Your task to perform on an android device: turn off location history Image 0: 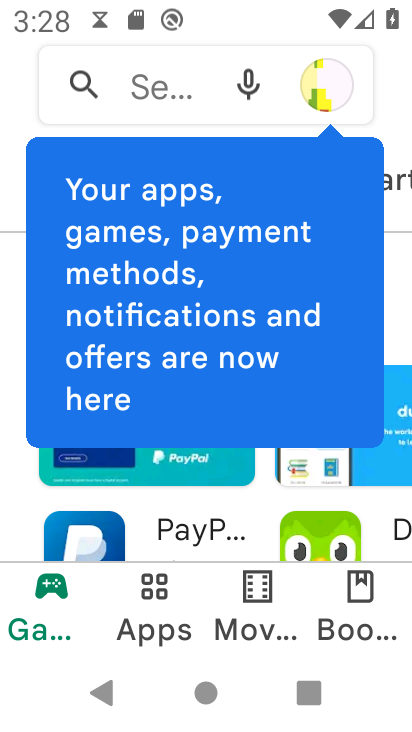
Step 0: press back button
Your task to perform on an android device: turn off location history Image 1: 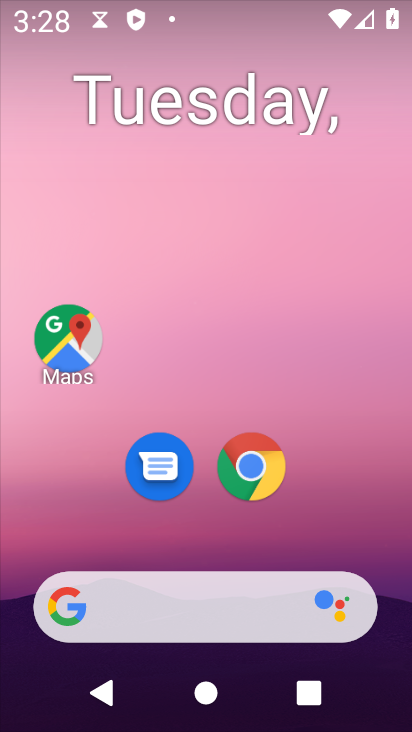
Step 1: drag from (360, 355) to (292, 8)
Your task to perform on an android device: turn off location history Image 2: 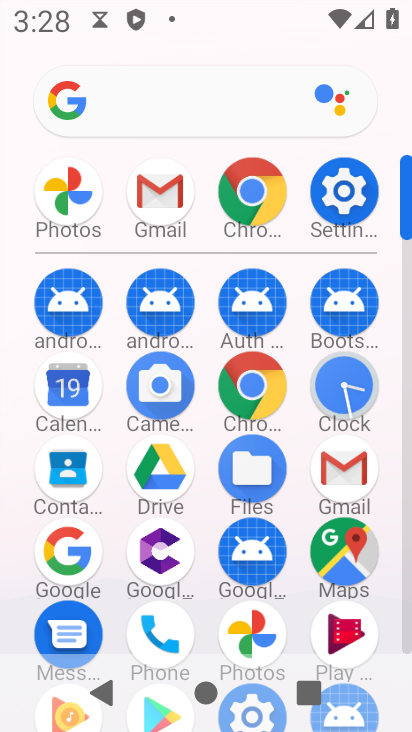
Step 2: click (340, 189)
Your task to perform on an android device: turn off location history Image 3: 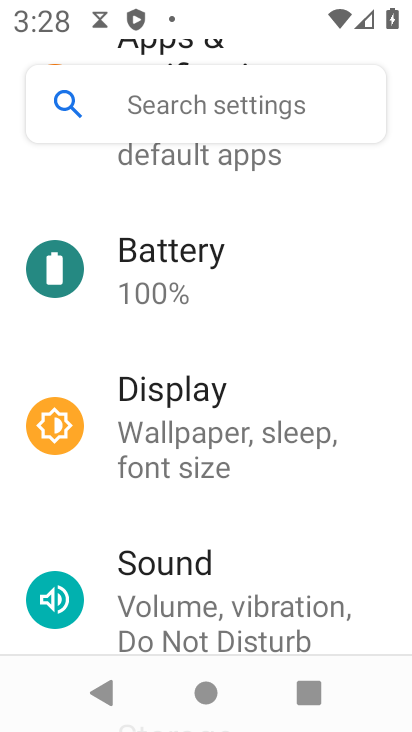
Step 3: drag from (264, 444) to (289, 111)
Your task to perform on an android device: turn off location history Image 4: 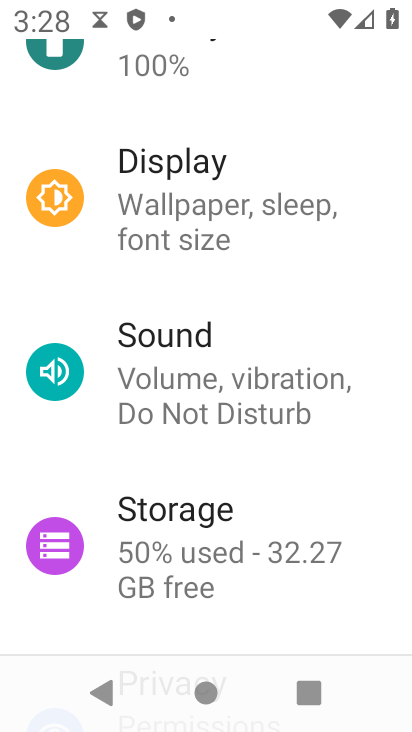
Step 4: drag from (252, 399) to (268, 80)
Your task to perform on an android device: turn off location history Image 5: 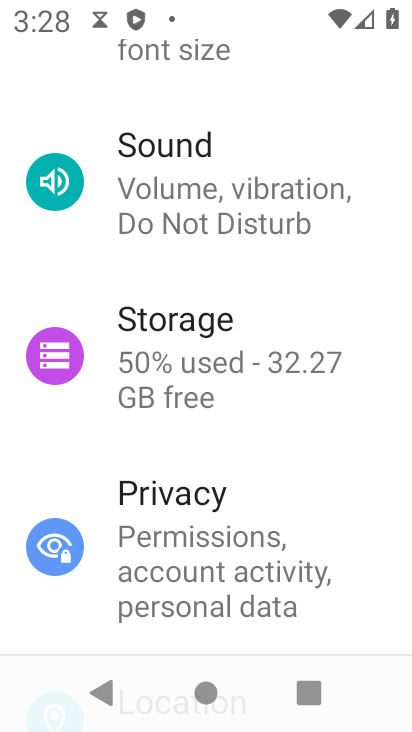
Step 5: drag from (208, 519) to (232, 121)
Your task to perform on an android device: turn off location history Image 6: 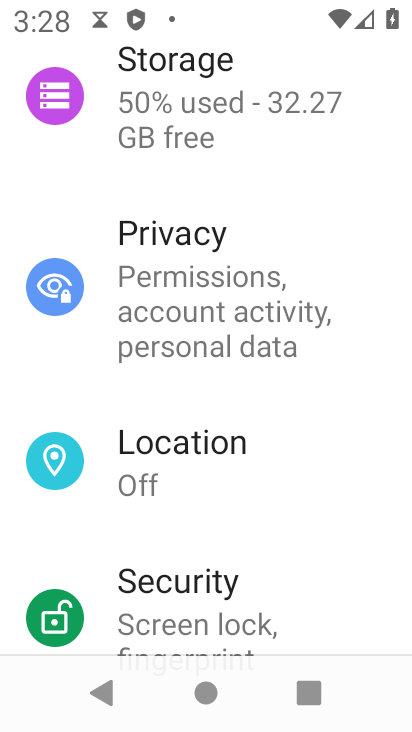
Step 6: click (240, 470)
Your task to perform on an android device: turn off location history Image 7: 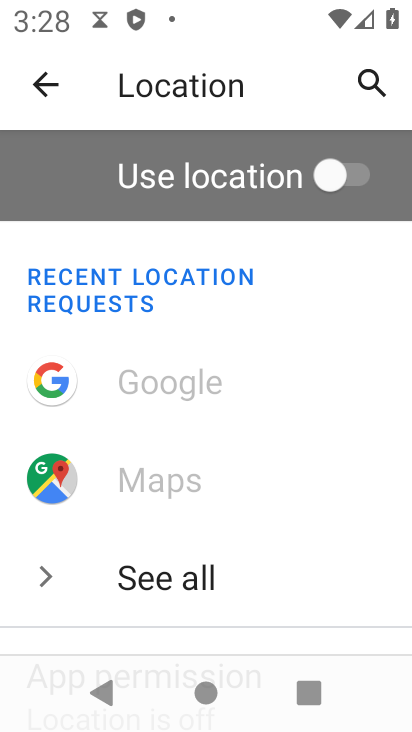
Step 7: drag from (288, 470) to (236, 181)
Your task to perform on an android device: turn off location history Image 8: 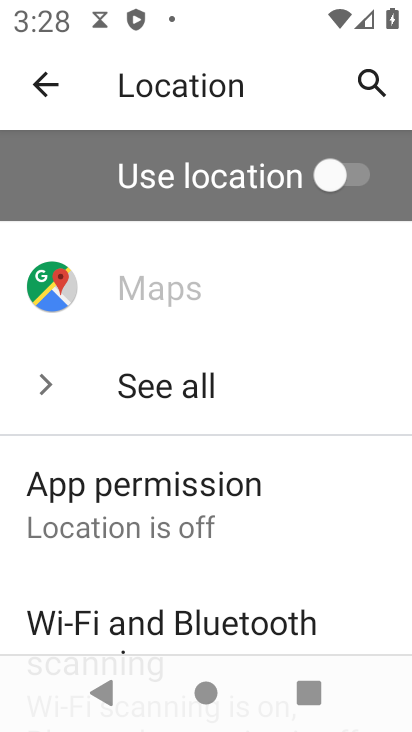
Step 8: drag from (183, 625) to (225, 219)
Your task to perform on an android device: turn off location history Image 9: 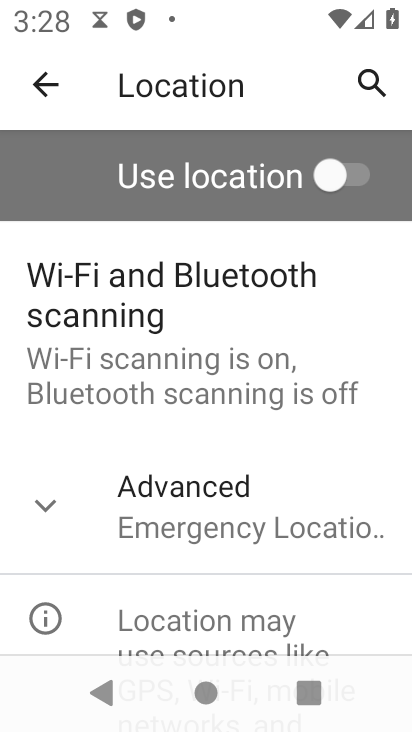
Step 9: click (214, 525)
Your task to perform on an android device: turn off location history Image 10: 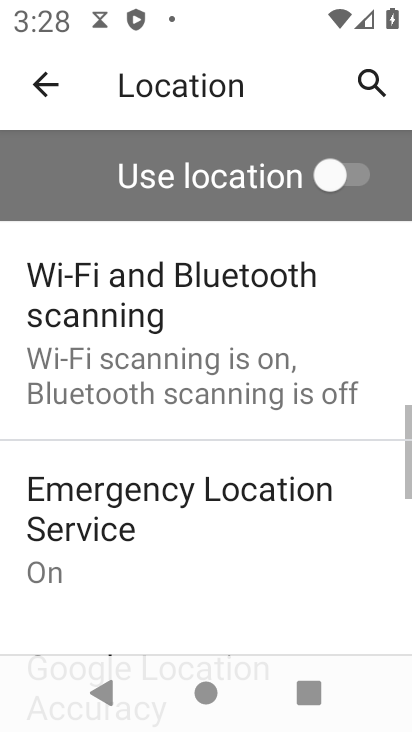
Step 10: drag from (214, 528) to (210, 273)
Your task to perform on an android device: turn off location history Image 11: 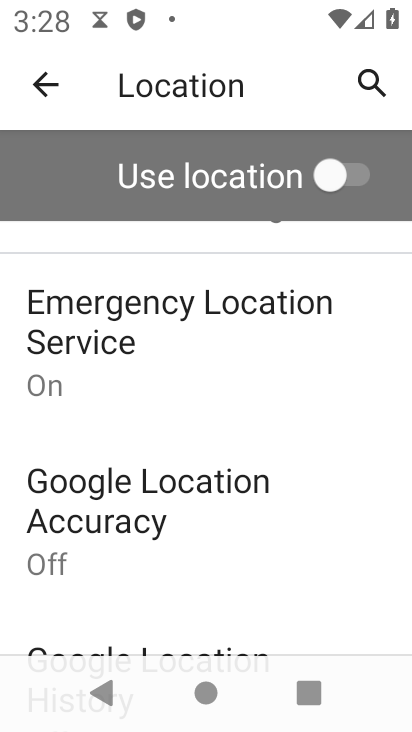
Step 11: drag from (263, 584) to (224, 217)
Your task to perform on an android device: turn off location history Image 12: 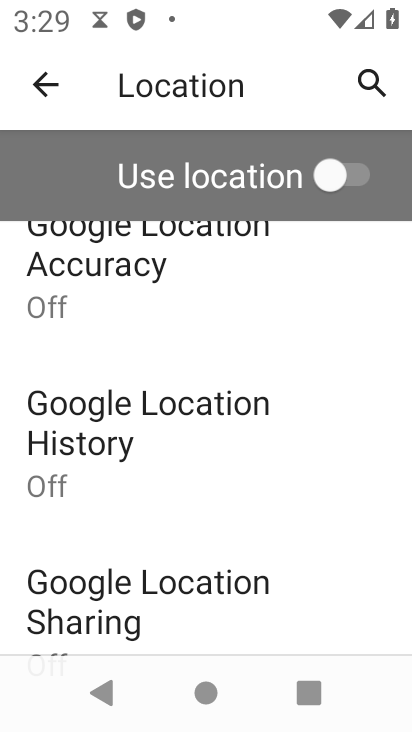
Step 12: drag from (224, 576) to (220, 289)
Your task to perform on an android device: turn off location history Image 13: 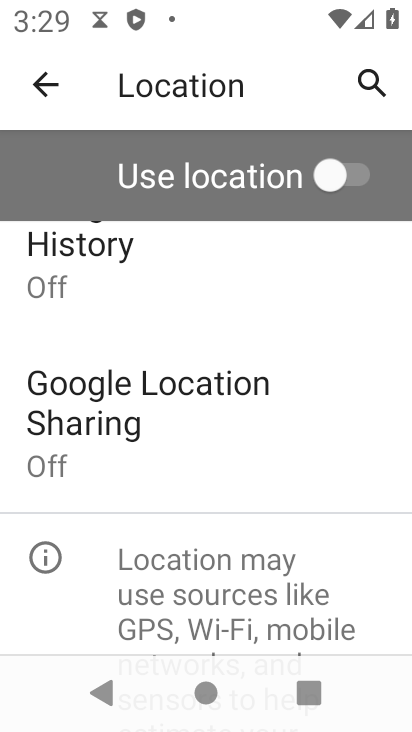
Step 13: click (166, 255)
Your task to perform on an android device: turn off location history Image 14: 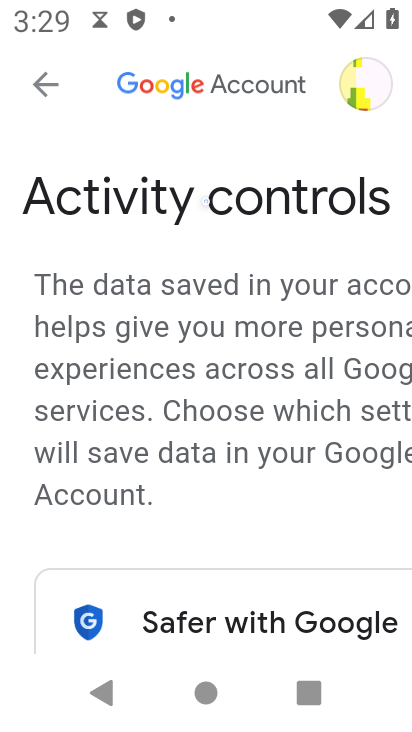
Step 14: task complete